Your task to perform on an android device: Open display settings Image 0: 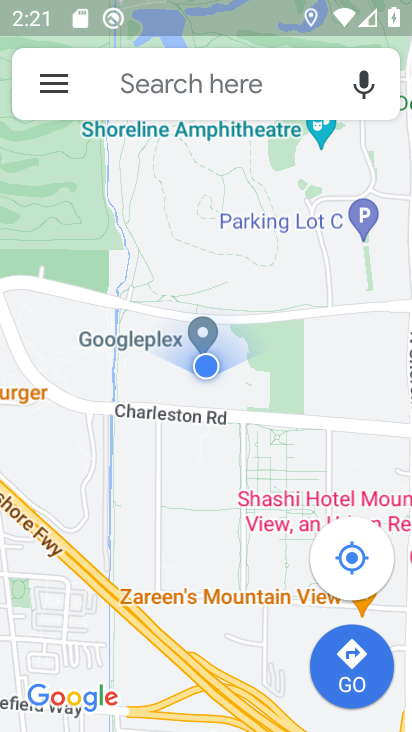
Step 0: press home button
Your task to perform on an android device: Open display settings Image 1: 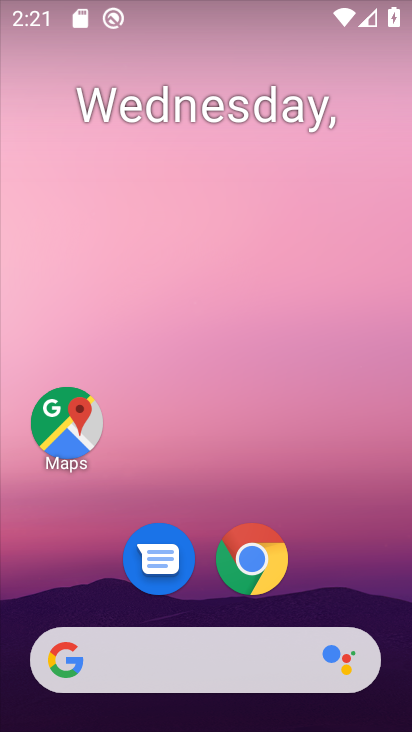
Step 1: drag from (207, 725) to (229, 2)
Your task to perform on an android device: Open display settings Image 2: 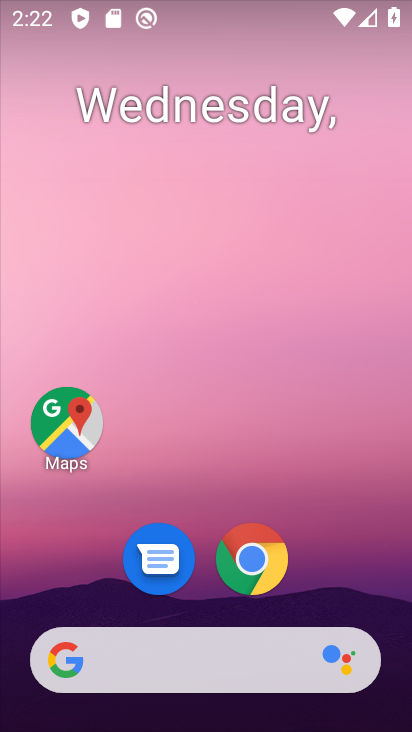
Step 2: drag from (197, 719) to (202, 63)
Your task to perform on an android device: Open display settings Image 3: 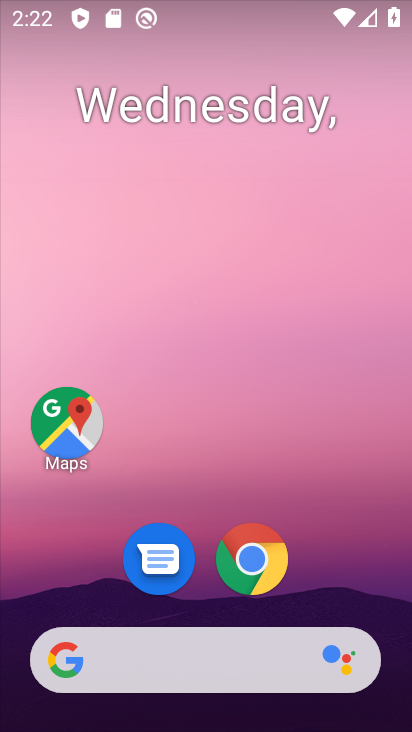
Step 3: drag from (231, 728) to (199, 20)
Your task to perform on an android device: Open display settings Image 4: 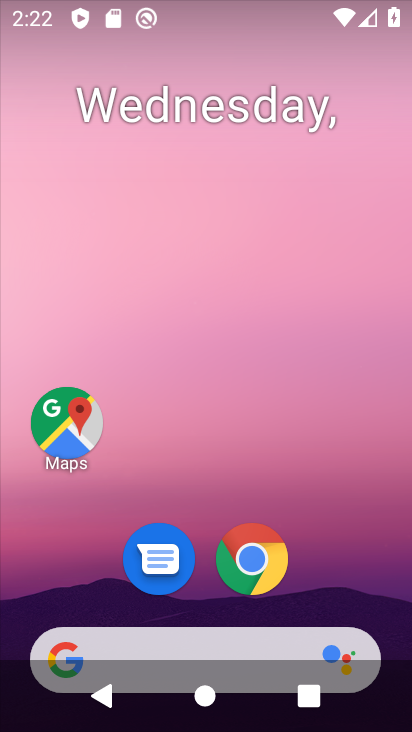
Step 4: drag from (225, 719) to (257, 25)
Your task to perform on an android device: Open display settings Image 5: 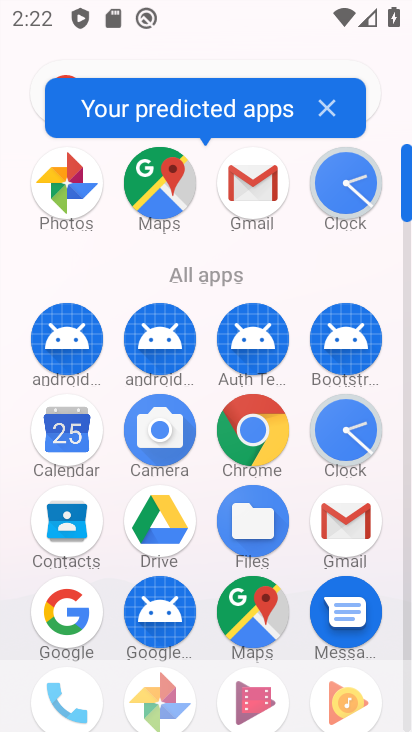
Step 5: drag from (207, 583) to (216, 190)
Your task to perform on an android device: Open display settings Image 6: 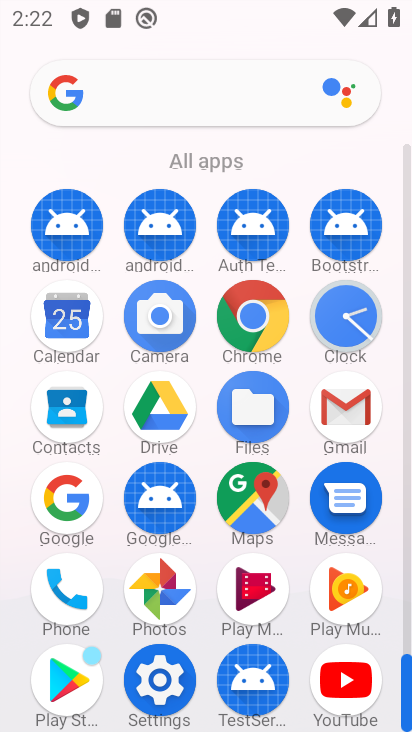
Step 6: click (160, 679)
Your task to perform on an android device: Open display settings Image 7: 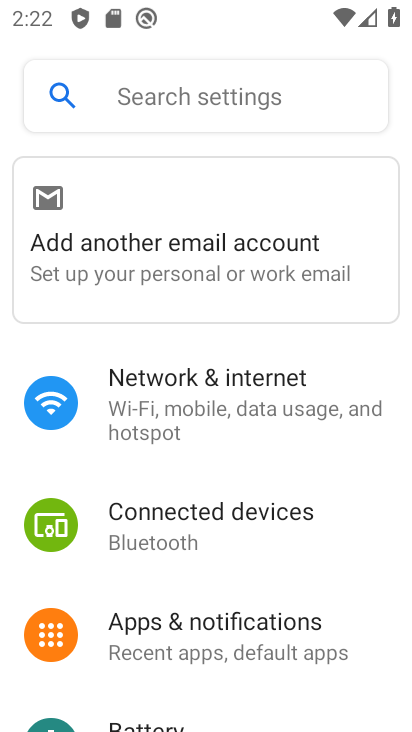
Step 7: drag from (202, 692) to (204, 340)
Your task to perform on an android device: Open display settings Image 8: 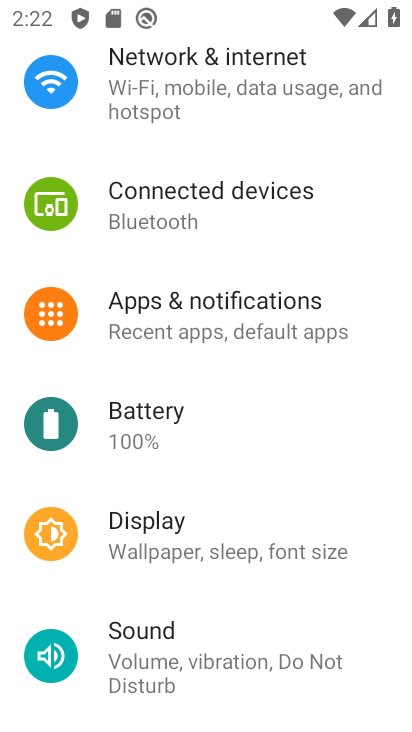
Step 8: click (150, 540)
Your task to perform on an android device: Open display settings Image 9: 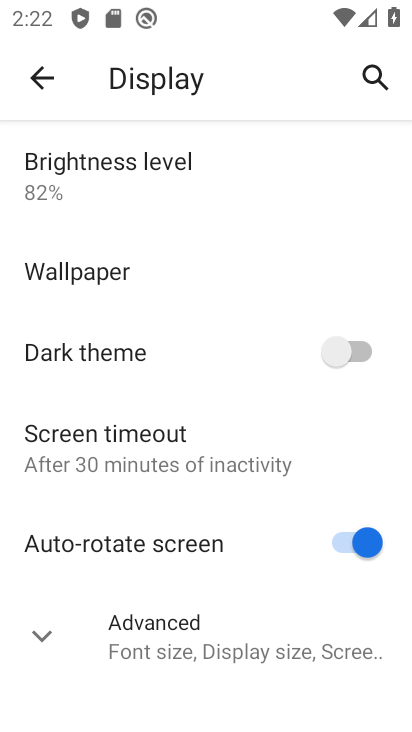
Step 9: task complete